Your task to perform on an android device: turn on javascript in the chrome app Image 0: 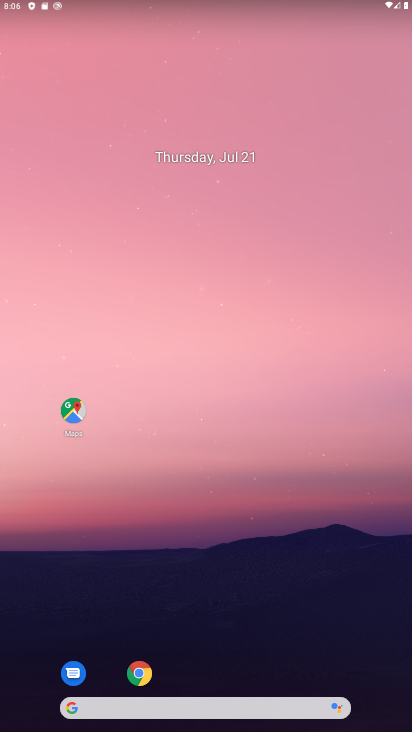
Step 0: click (135, 678)
Your task to perform on an android device: turn on javascript in the chrome app Image 1: 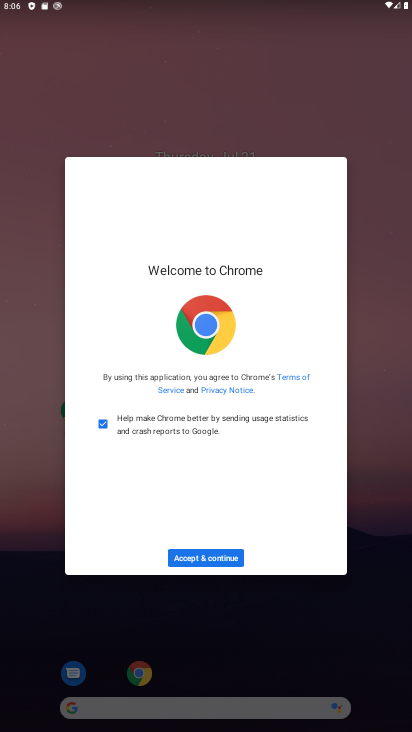
Step 1: click (223, 559)
Your task to perform on an android device: turn on javascript in the chrome app Image 2: 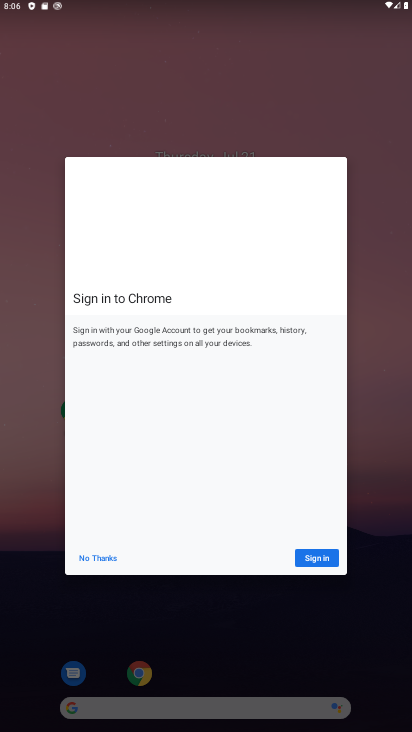
Step 2: click (223, 559)
Your task to perform on an android device: turn on javascript in the chrome app Image 3: 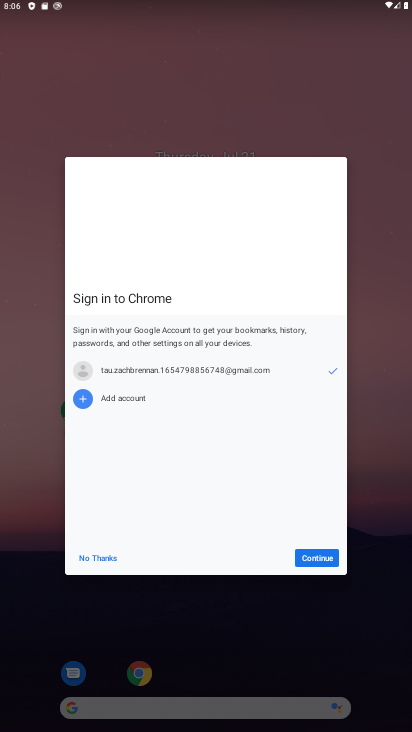
Step 3: click (316, 561)
Your task to perform on an android device: turn on javascript in the chrome app Image 4: 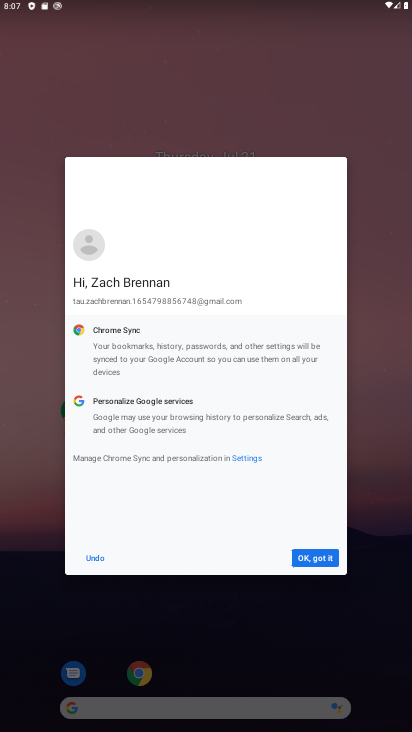
Step 4: click (303, 562)
Your task to perform on an android device: turn on javascript in the chrome app Image 5: 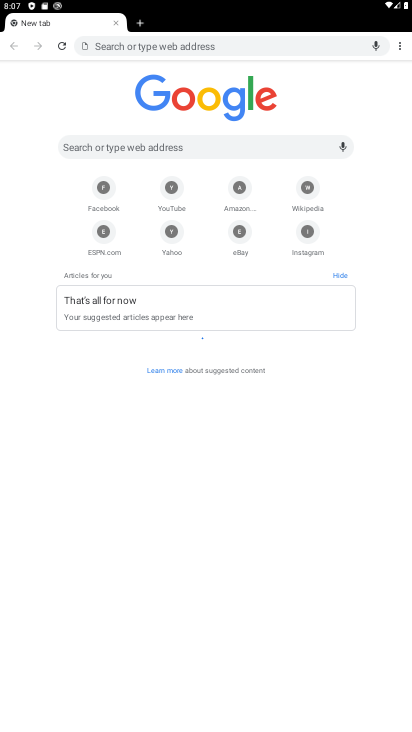
Step 5: click (399, 49)
Your task to perform on an android device: turn on javascript in the chrome app Image 6: 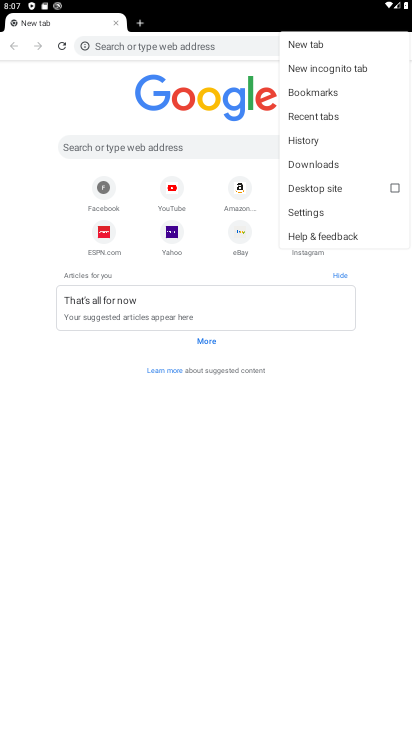
Step 6: click (315, 215)
Your task to perform on an android device: turn on javascript in the chrome app Image 7: 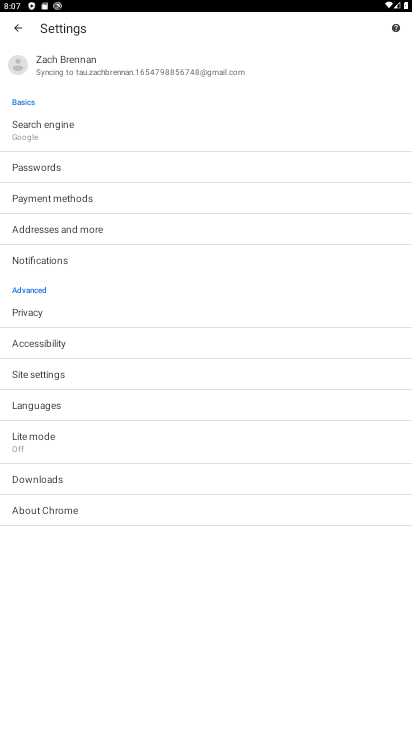
Step 7: click (86, 383)
Your task to perform on an android device: turn on javascript in the chrome app Image 8: 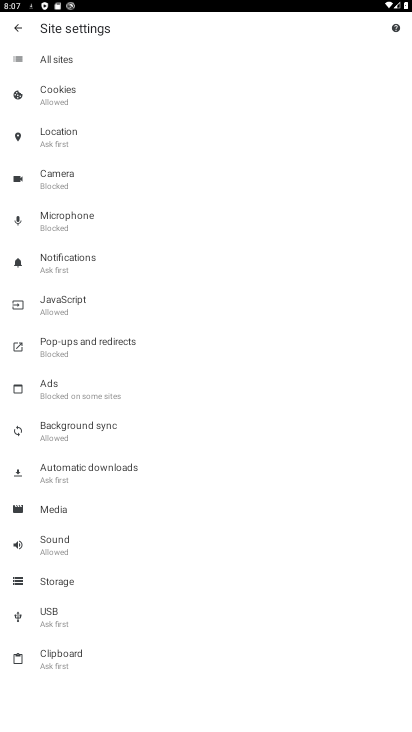
Step 8: click (86, 316)
Your task to perform on an android device: turn on javascript in the chrome app Image 9: 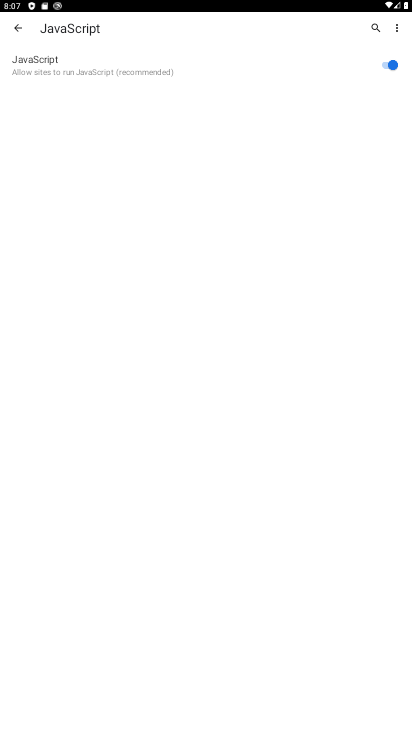
Step 9: task complete